Your task to perform on an android device: Show me popular videos on Youtube Image 0: 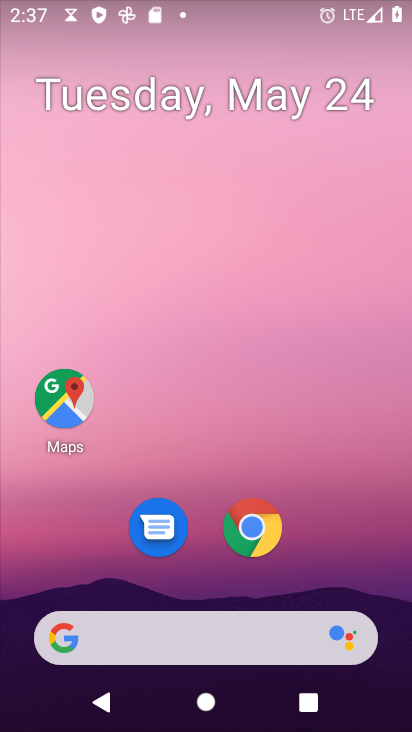
Step 0: drag from (183, 641) to (322, 119)
Your task to perform on an android device: Show me popular videos on Youtube Image 1: 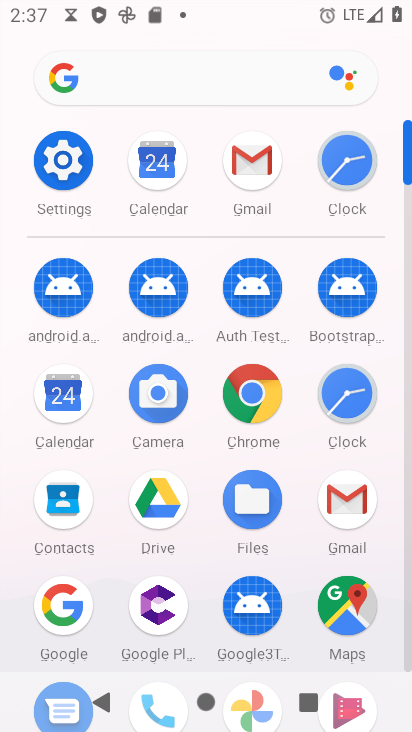
Step 1: drag from (209, 653) to (329, 200)
Your task to perform on an android device: Show me popular videos on Youtube Image 2: 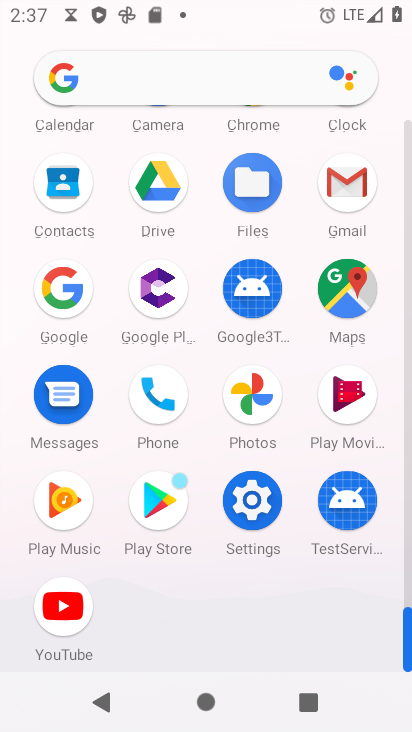
Step 2: click (57, 608)
Your task to perform on an android device: Show me popular videos on Youtube Image 3: 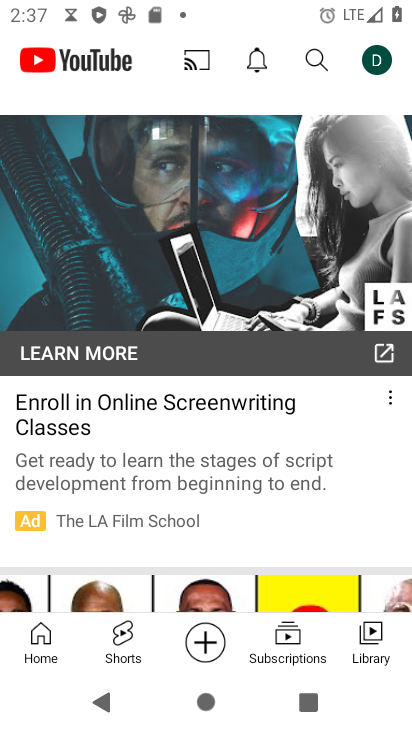
Step 3: task complete